Your task to perform on an android device: Go to Amazon Image 0: 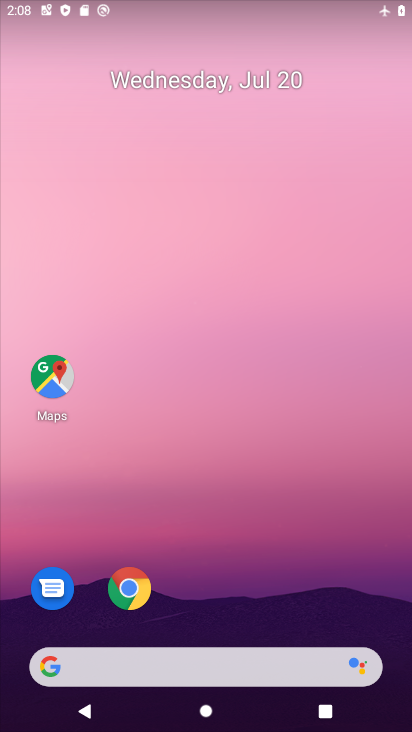
Step 0: drag from (286, 500) to (10, 700)
Your task to perform on an android device: Go to Amazon Image 1: 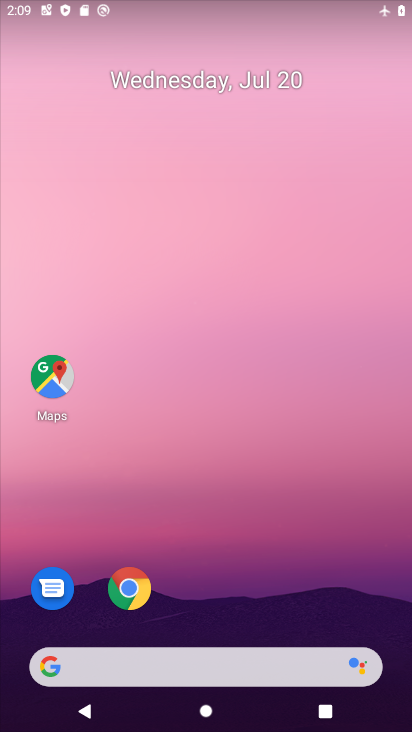
Step 1: drag from (248, 571) to (351, 3)
Your task to perform on an android device: Go to Amazon Image 2: 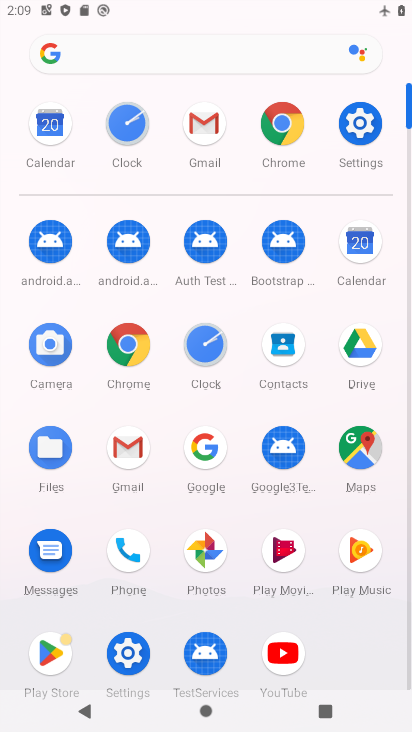
Step 2: click (264, 114)
Your task to perform on an android device: Go to Amazon Image 3: 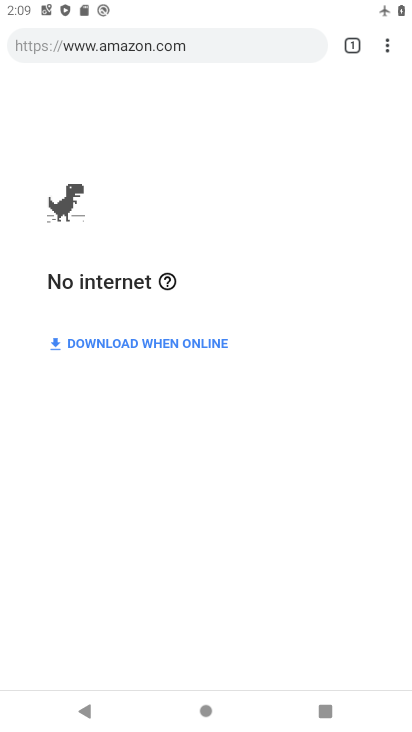
Step 3: task complete